Your task to perform on an android device: choose inbox layout in the gmail app Image 0: 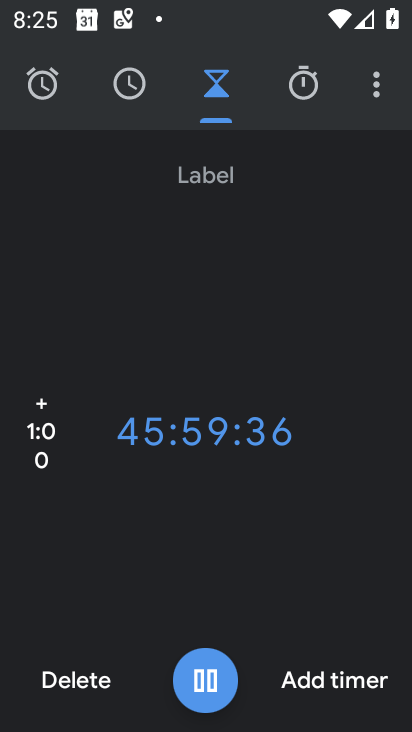
Step 0: press home button
Your task to perform on an android device: choose inbox layout in the gmail app Image 1: 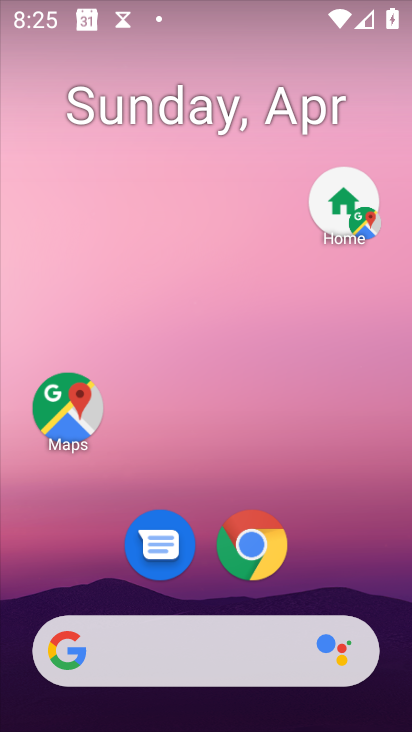
Step 1: drag from (302, 575) to (279, 246)
Your task to perform on an android device: choose inbox layout in the gmail app Image 2: 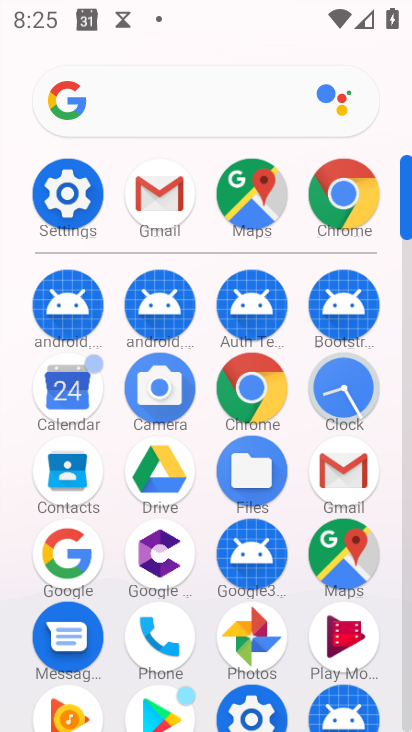
Step 2: click (333, 468)
Your task to perform on an android device: choose inbox layout in the gmail app Image 3: 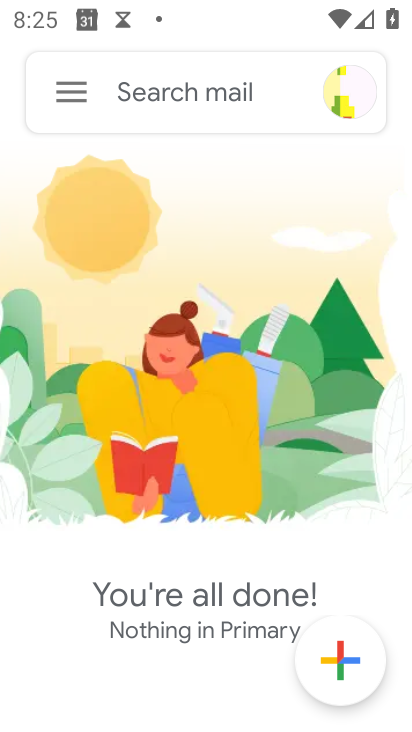
Step 3: click (69, 101)
Your task to perform on an android device: choose inbox layout in the gmail app Image 4: 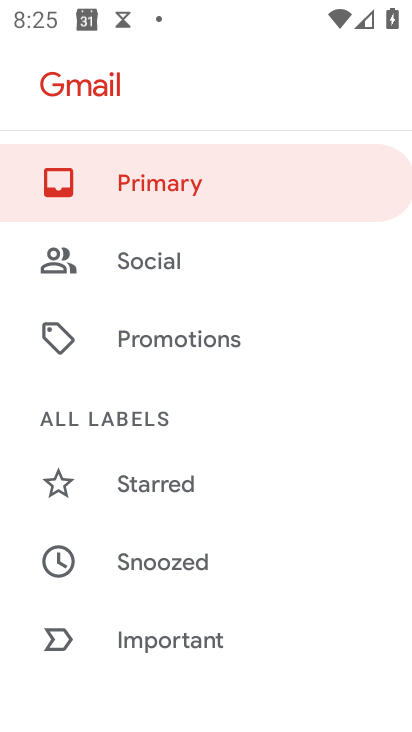
Step 4: drag from (231, 638) to (274, 135)
Your task to perform on an android device: choose inbox layout in the gmail app Image 5: 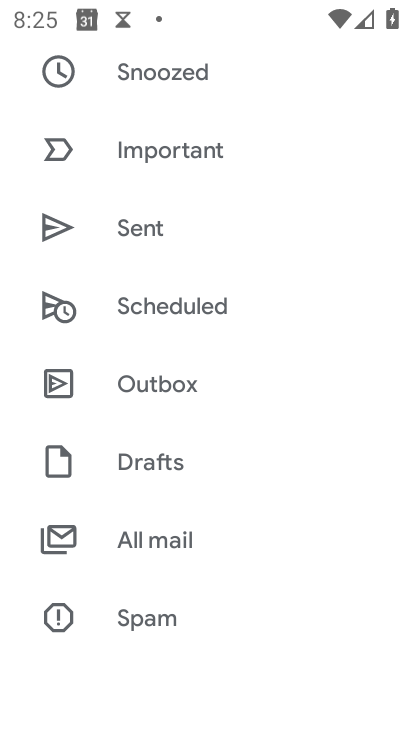
Step 5: drag from (183, 595) to (190, 187)
Your task to perform on an android device: choose inbox layout in the gmail app Image 6: 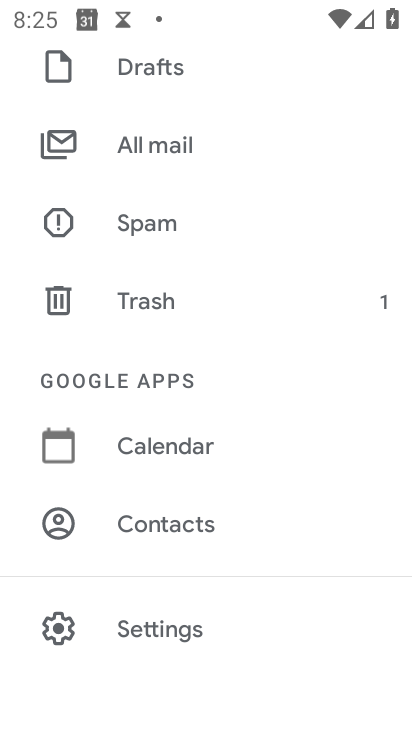
Step 6: click (163, 629)
Your task to perform on an android device: choose inbox layout in the gmail app Image 7: 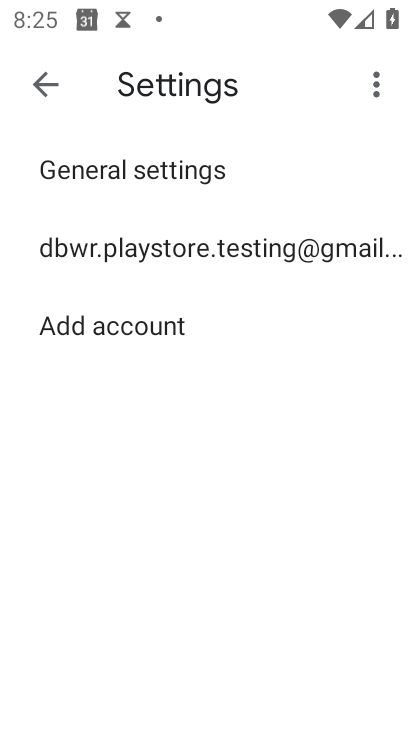
Step 7: click (216, 230)
Your task to perform on an android device: choose inbox layout in the gmail app Image 8: 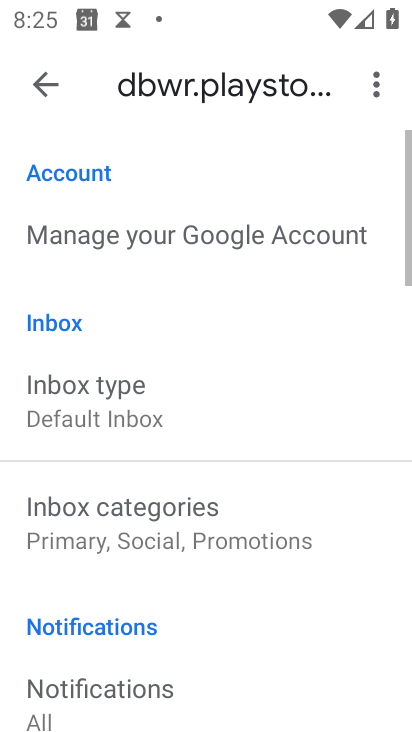
Step 8: click (122, 388)
Your task to perform on an android device: choose inbox layout in the gmail app Image 9: 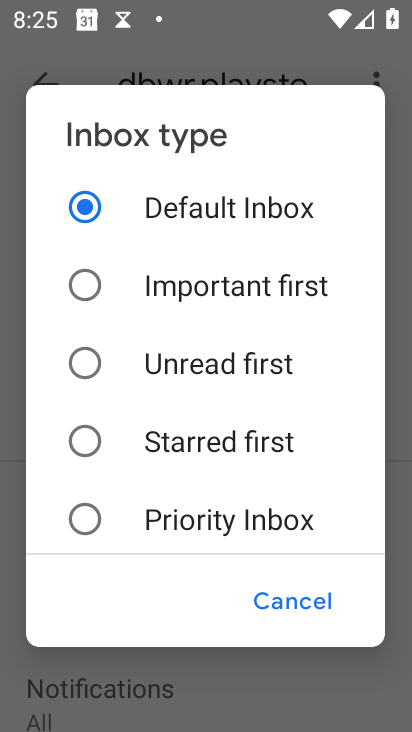
Step 9: click (189, 366)
Your task to perform on an android device: choose inbox layout in the gmail app Image 10: 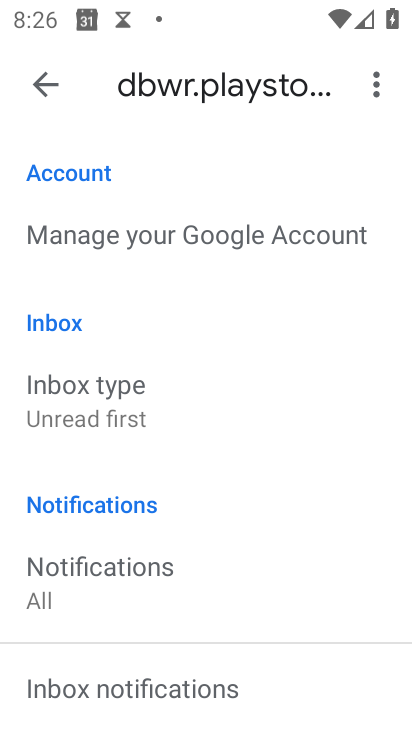
Step 10: task complete